Your task to perform on an android device: change text size in settings app Image 0: 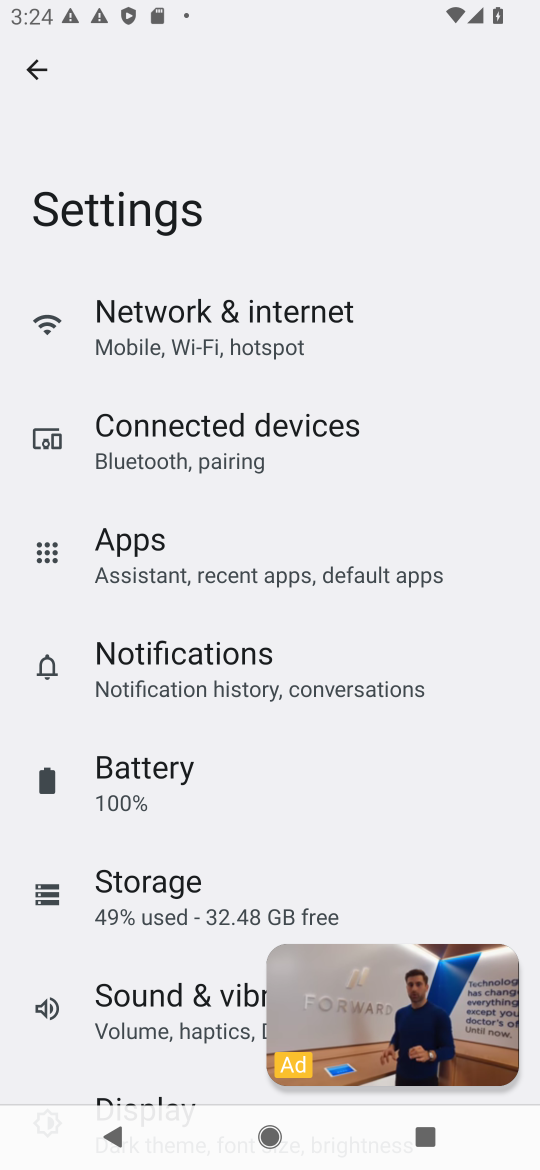
Step 0: drag from (131, 845) to (179, 553)
Your task to perform on an android device: change text size in settings app Image 1: 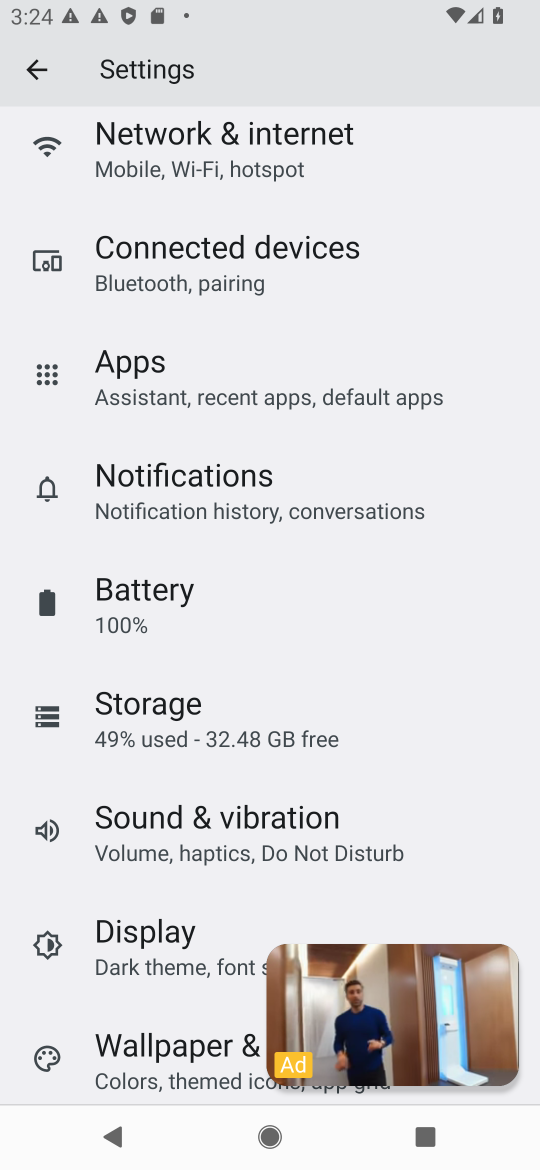
Step 1: click (129, 947)
Your task to perform on an android device: change text size in settings app Image 2: 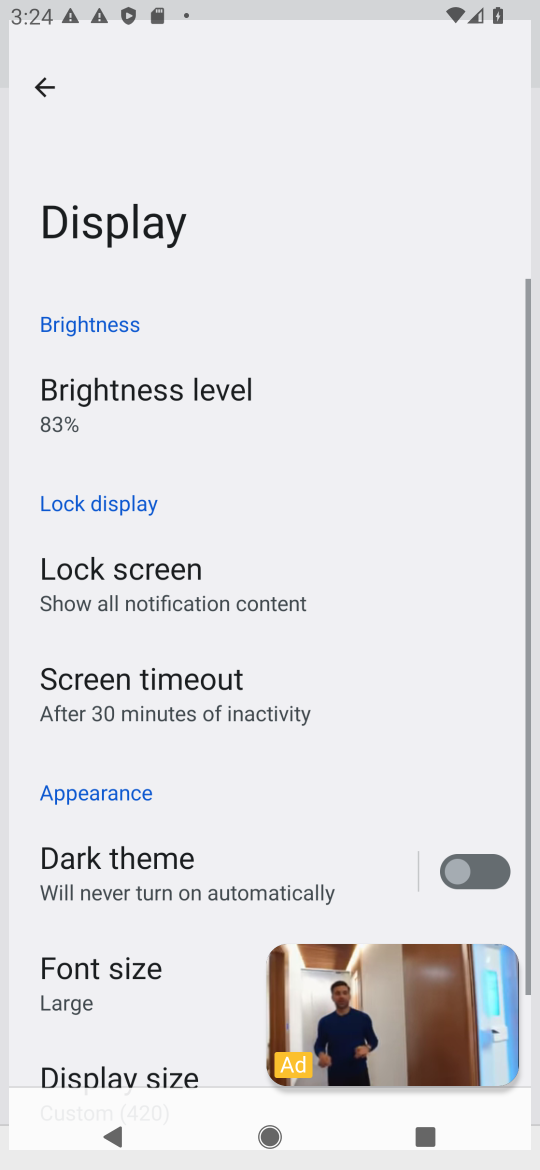
Step 2: click (471, 991)
Your task to perform on an android device: change text size in settings app Image 3: 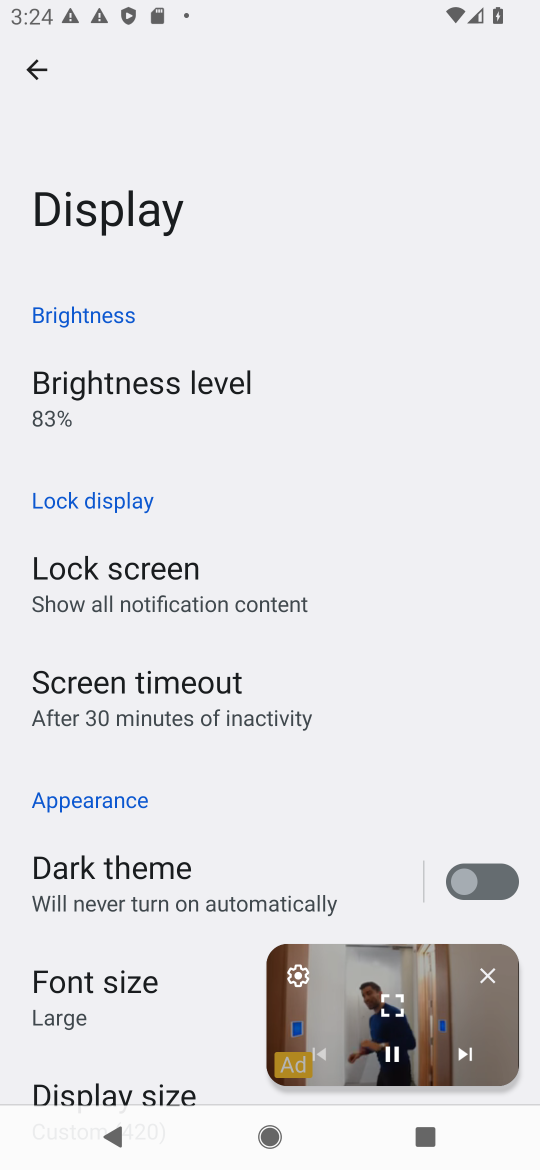
Step 3: click (478, 974)
Your task to perform on an android device: change text size in settings app Image 4: 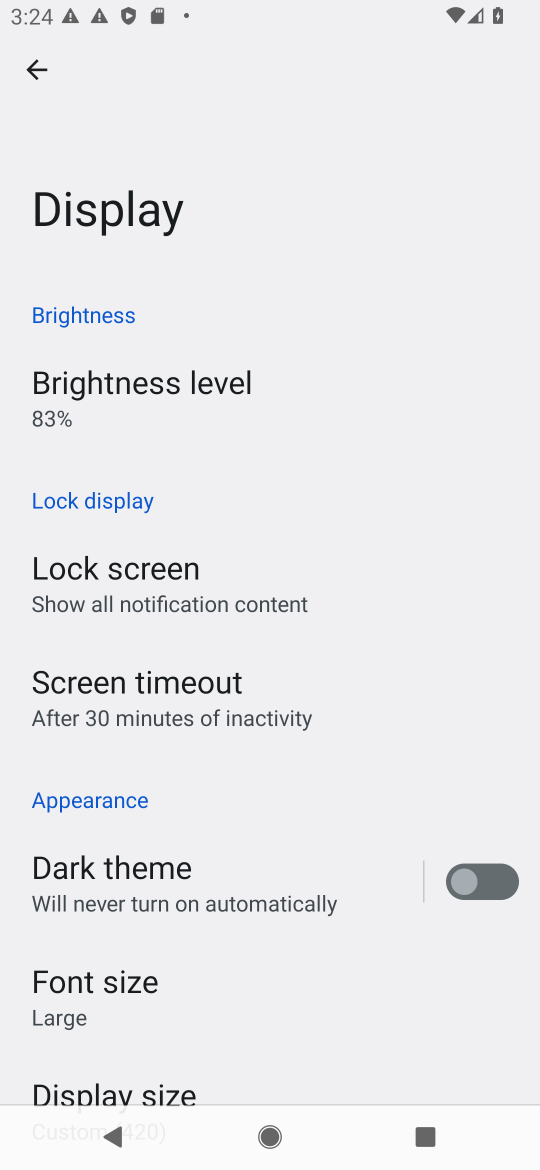
Step 4: click (125, 997)
Your task to perform on an android device: change text size in settings app Image 5: 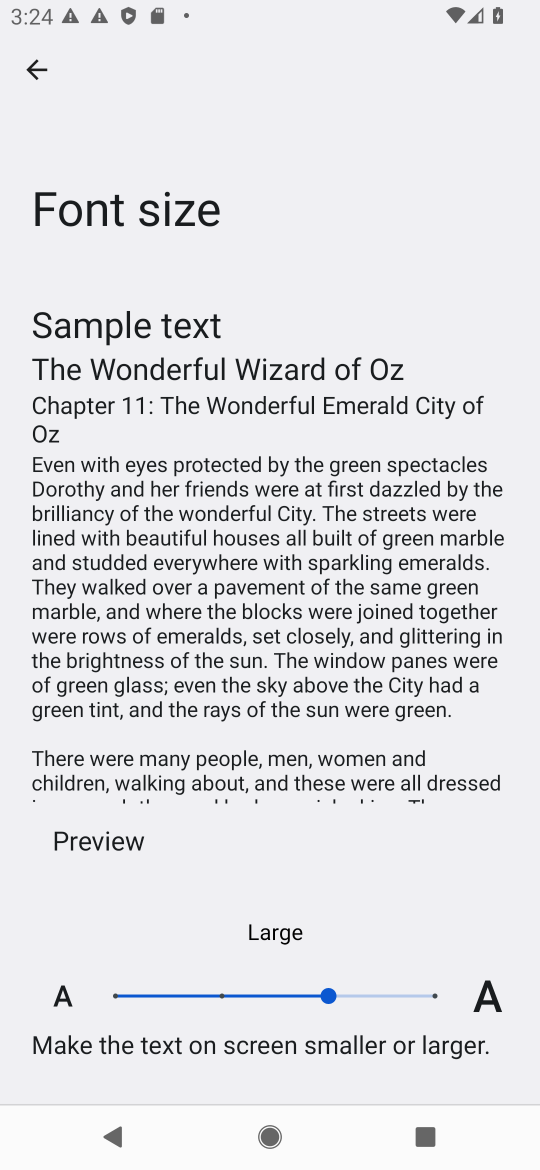
Step 5: click (215, 993)
Your task to perform on an android device: change text size in settings app Image 6: 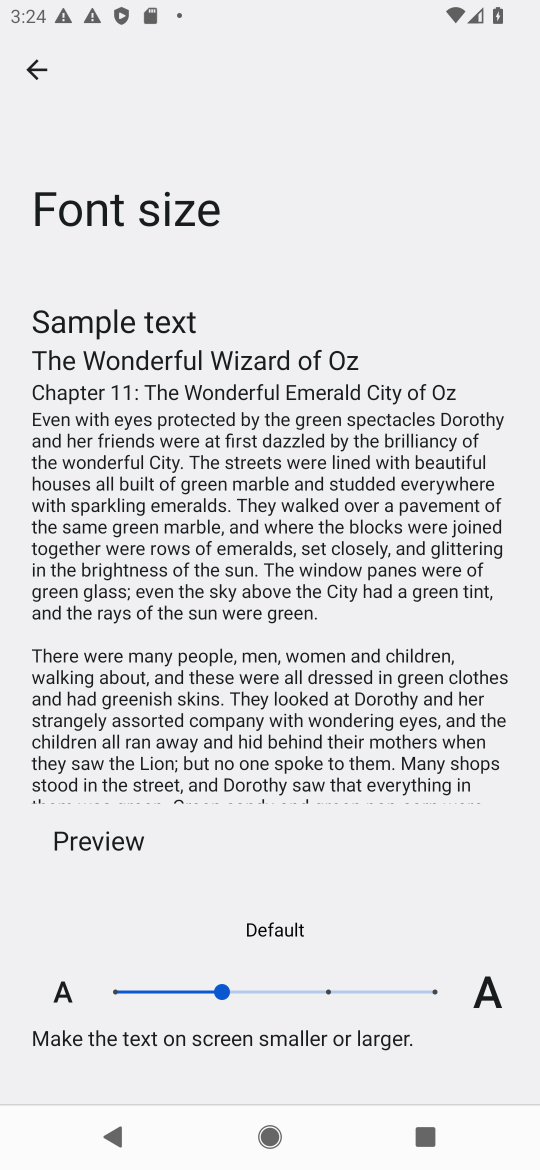
Step 6: task complete